Your task to perform on an android device: Go to Wikipedia Image 0: 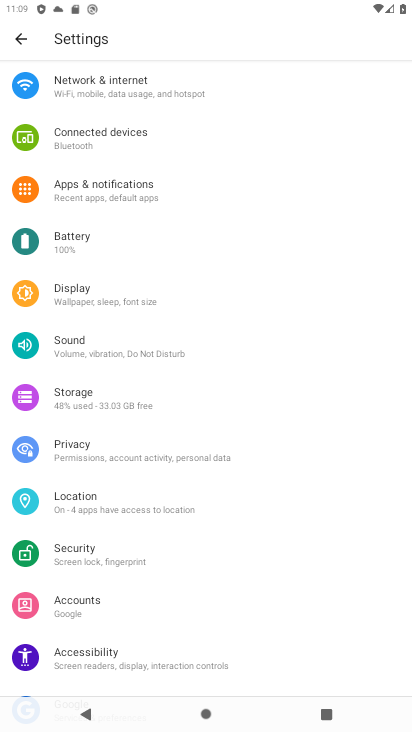
Step 0: press home button
Your task to perform on an android device: Go to Wikipedia Image 1: 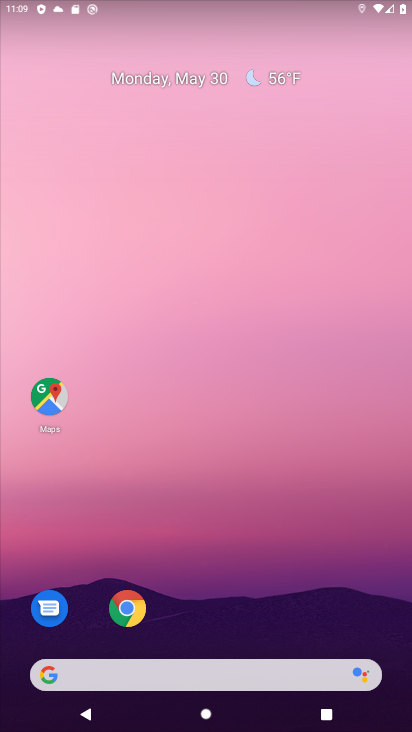
Step 1: click (127, 634)
Your task to perform on an android device: Go to Wikipedia Image 2: 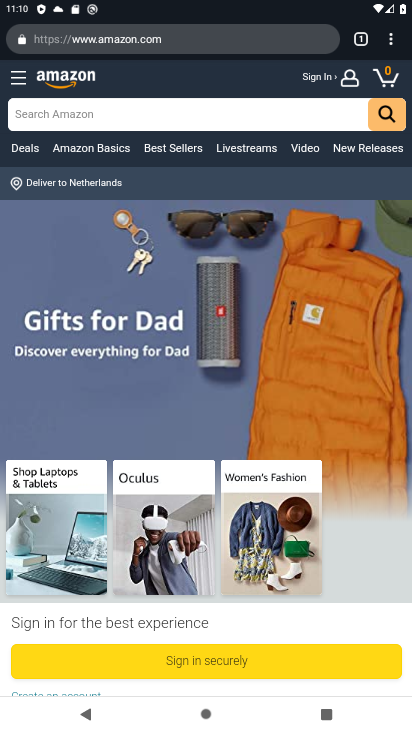
Step 2: click (153, 36)
Your task to perform on an android device: Go to Wikipedia Image 3: 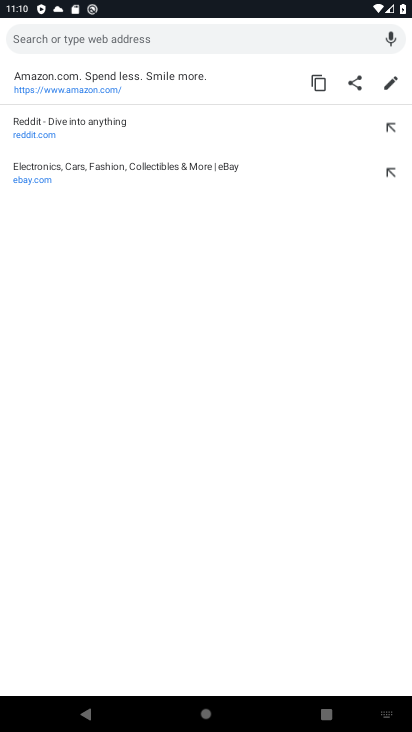
Step 3: type "wikipedia"
Your task to perform on an android device: Go to Wikipedia Image 4: 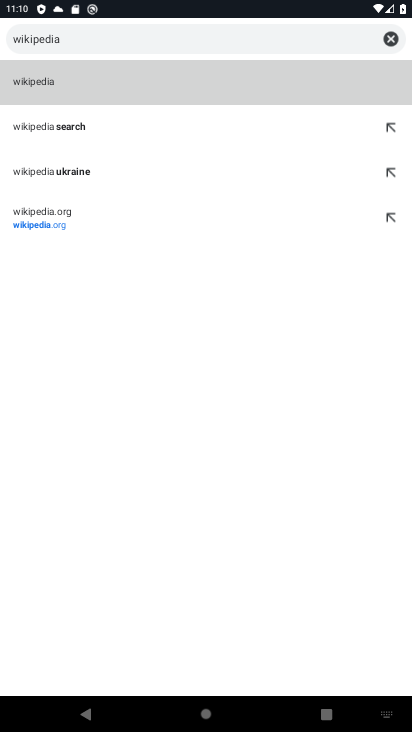
Step 4: click (38, 86)
Your task to perform on an android device: Go to Wikipedia Image 5: 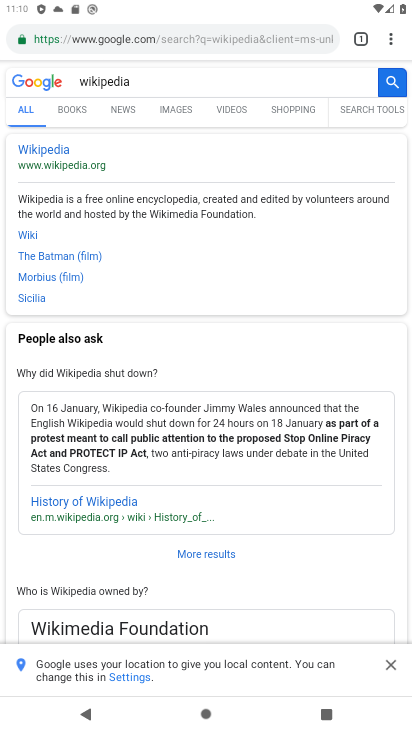
Step 5: click (58, 171)
Your task to perform on an android device: Go to Wikipedia Image 6: 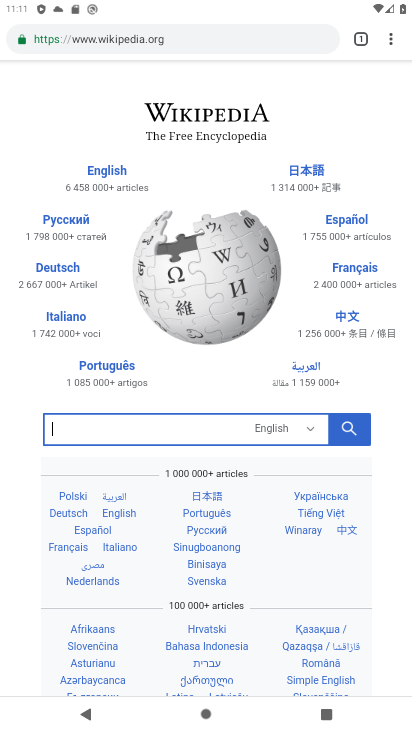
Step 6: task complete